Your task to perform on an android device: change the clock style Image 0: 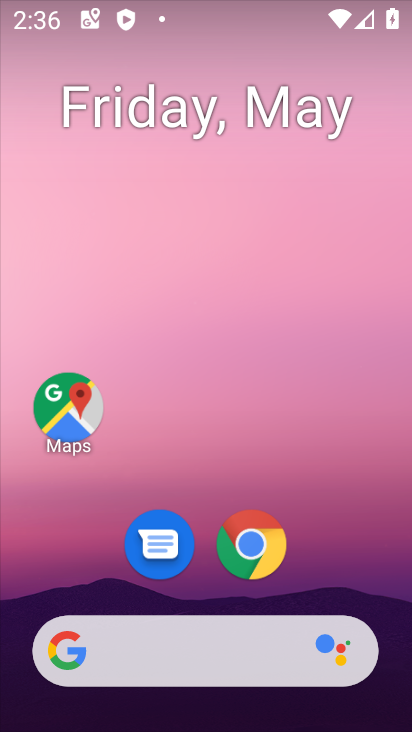
Step 0: drag from (202, 592) to (208, 220)
Your task to perform on an android device: change the clock style Image 1: 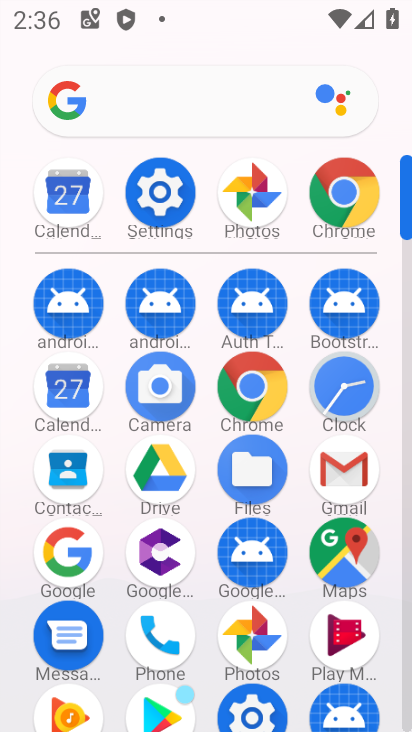
Step 1: click (335, 388)
Your task to perform on an android device: change the clock style Image 2: 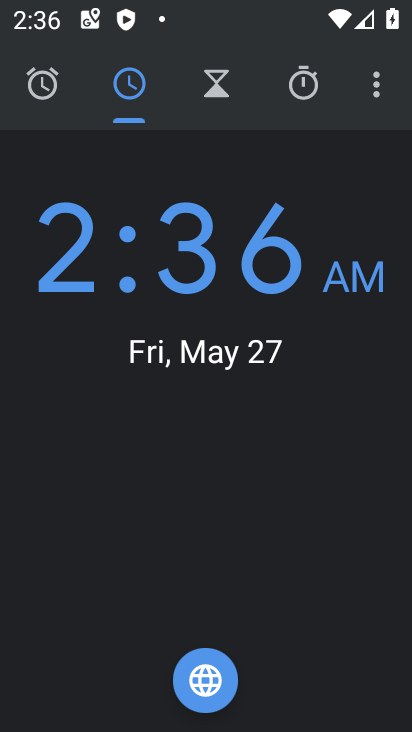
Step 2: click (371, 93)
Your task to perform on an android device: change the clock style Image 3: 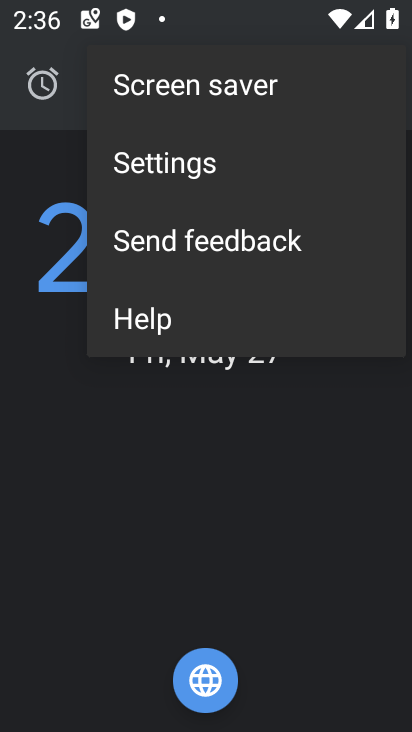
Step 3: click (181, 144)
Your task to perform on an android device: change the clock style Image 4: 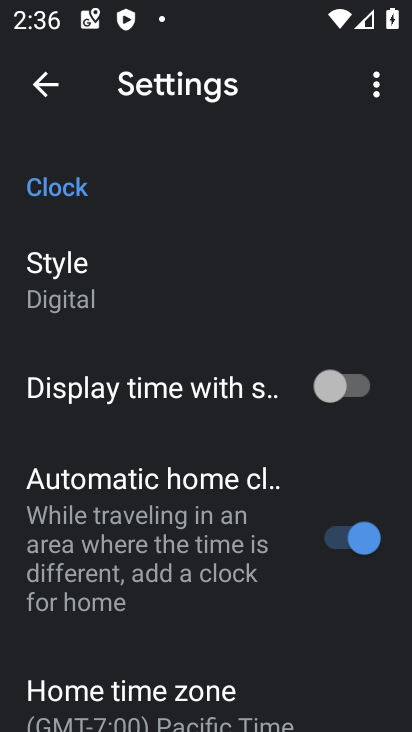
Step 4: click (82, 259)
Your task to perform on an android device: change the clock style Image 5: 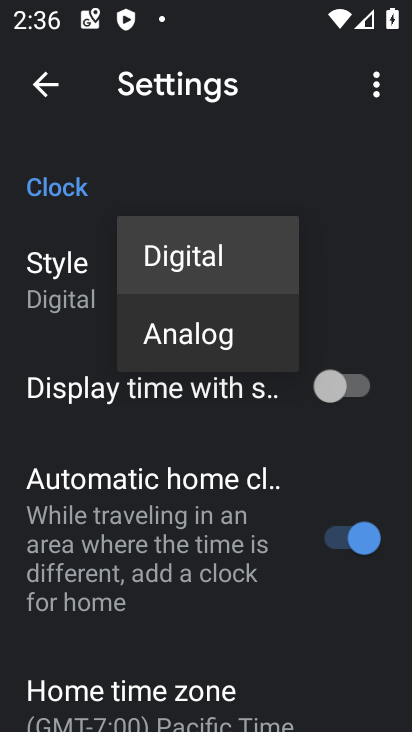
Step 5: click (152, 322)
Your task to perform on an android device: change the clock style Image 6: 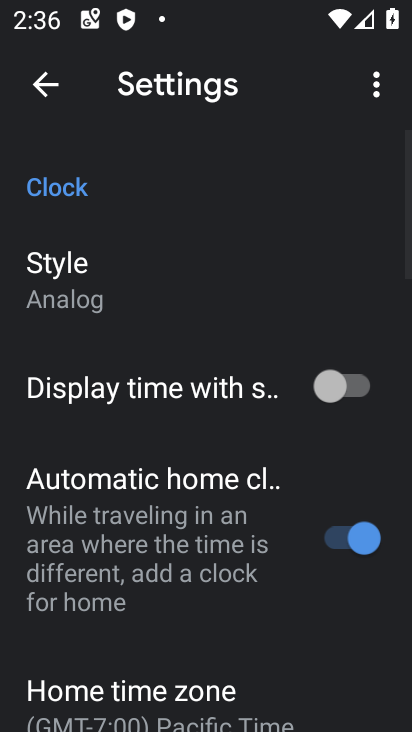
Step 6: task complete